Your task to perform on an android device: toggle improve location accuracy Image 0: 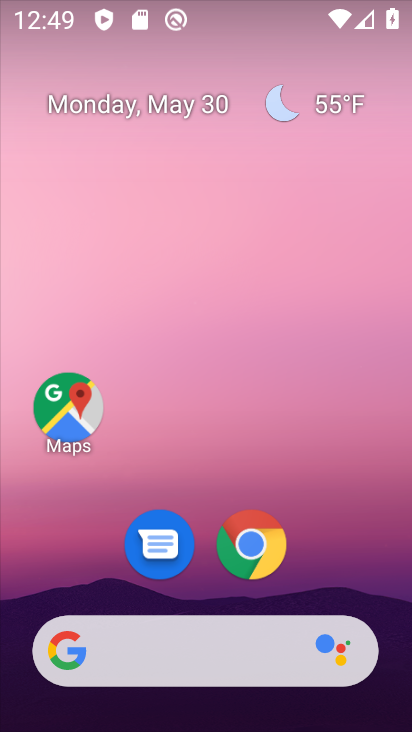
Step 0: drag from (314, 545) to (283, 109)
Your task to perform on an android device: toggle improve location accuracy Image 1: 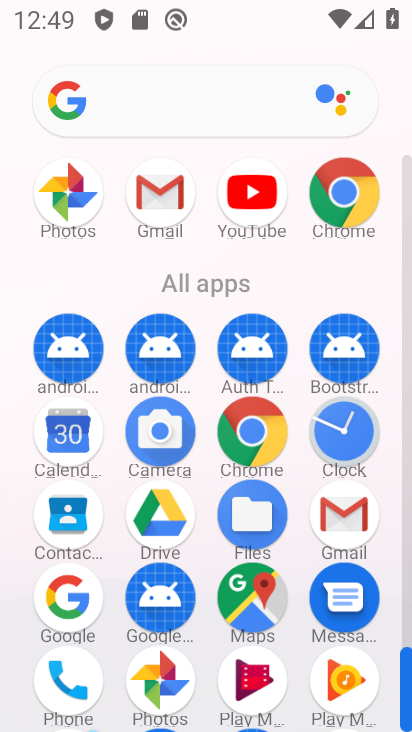
Step 1: drag from (202, 297) to (208, 167)
Your task to perform on an android device: toggle improve location accuracy Image 2: 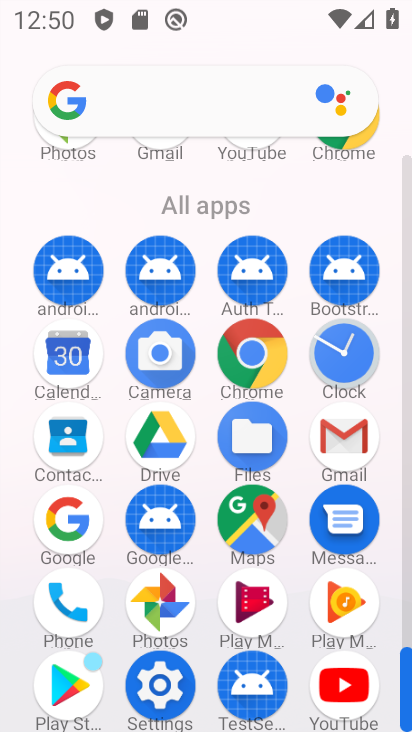
Step 2: click (178, 685)
Your task to perform on an android device: toggle improve location accuracy Image 3: 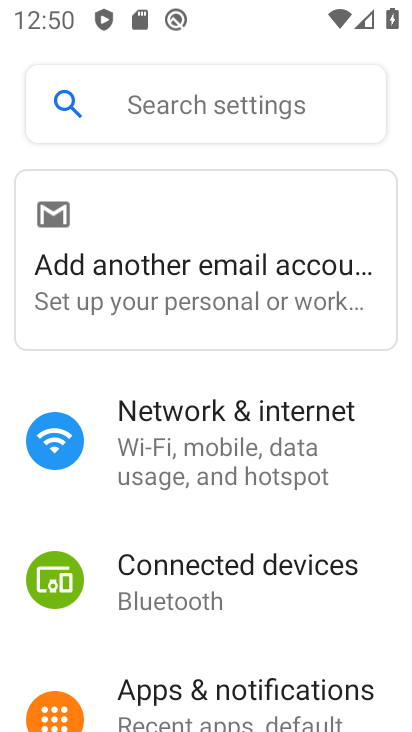
Step 3: drag from (212, 549) to (201, 260)
Your task to perform on an android device: toggle improve location accuracy Image 4: 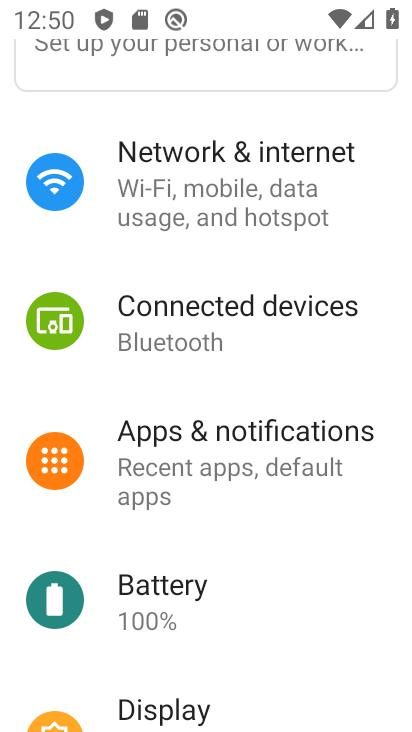
Step 4: drag from (237, 618) to (240, 166)
Your task to perform on an android device: toggle improve location accuracy Image 5: 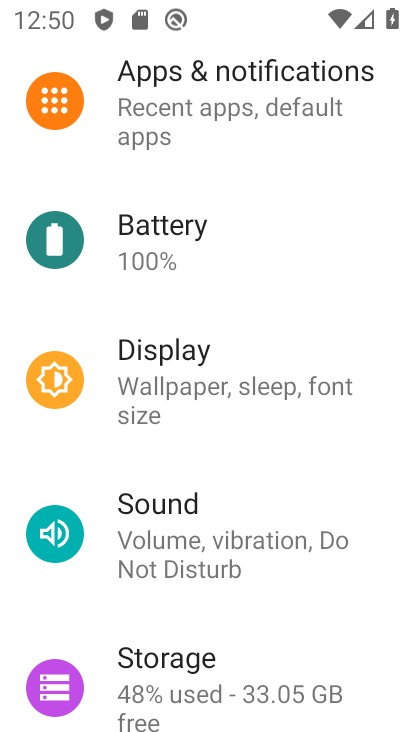
Step 5: drag from (243, 638) to (259, 164)
Your task to perform on an android device: toggle improve location accuracy Image 6: 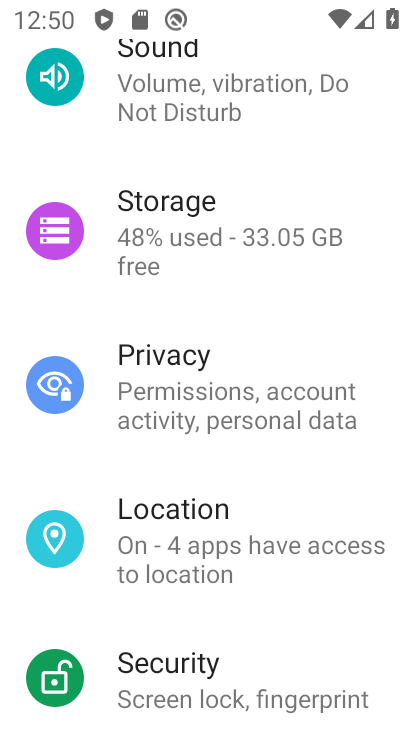
Step 6: click (215, 527)
Your task to perform on an android device: toggle improve location accuracy Image 7: 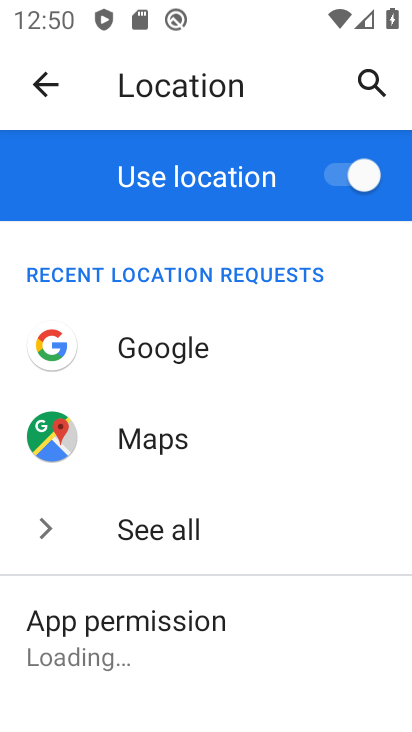
Step 7: drag from (221, 625) to (227, 256)
Your task to perform on an android device: toggle improve location accuracy Image 8: 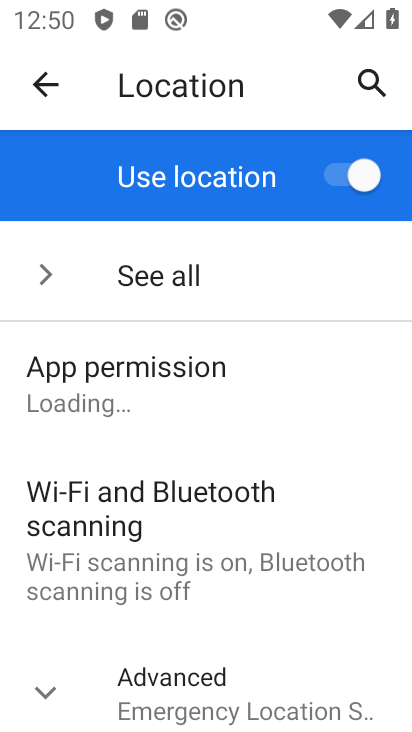
Step 8: click (169, 675)
Your task to perform on an android device: toggle improve location accuracy Image 9: 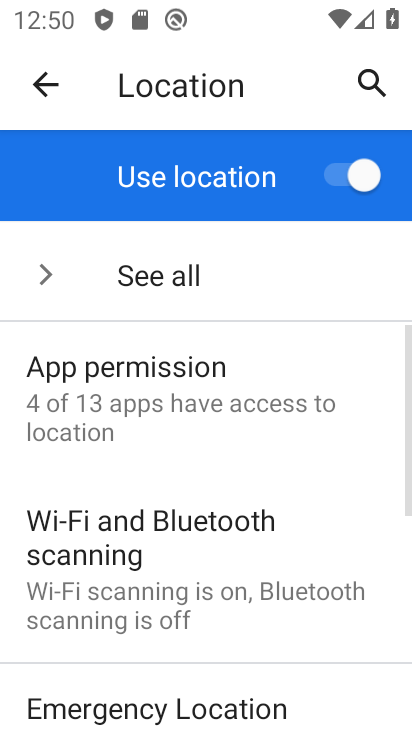
Step 9: drag from (179, 597) to (182, 284)
Your task to perform on an android device: toggle improve location accuracy Image 10: 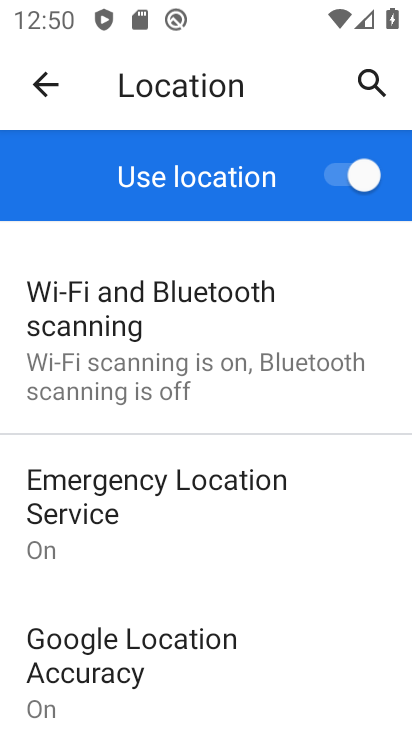
Step 10: click (166, 653)
Your task to perform on an android device: toggle improve location accuracy Image 11: 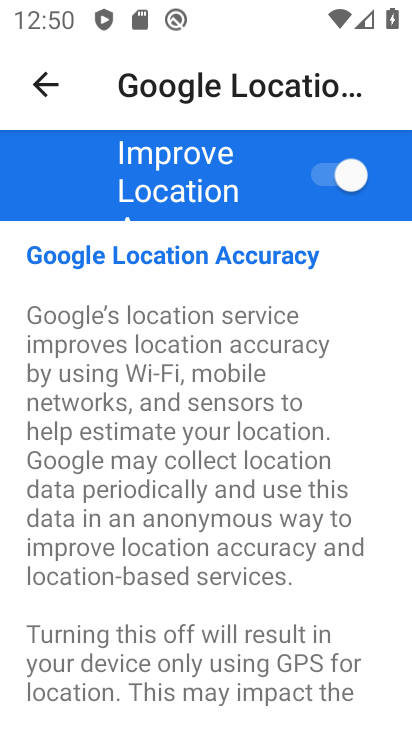
Step 11: click (329, 168)
Your task to perform on an android device: toggle improve location accuracy Image 12: 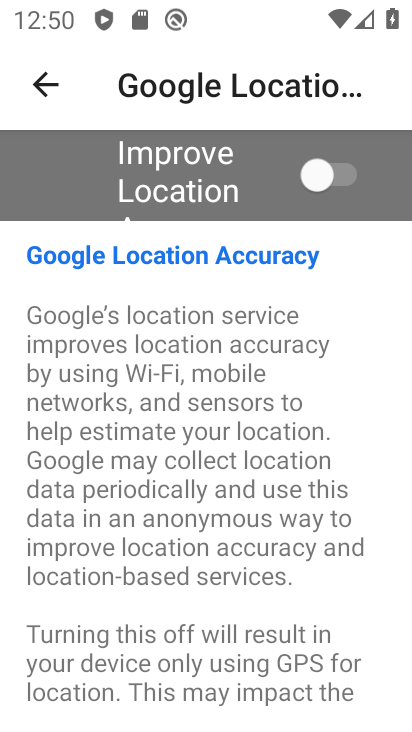
Step 12: task complete